Your task to perform on an android device: check storage Image 0: 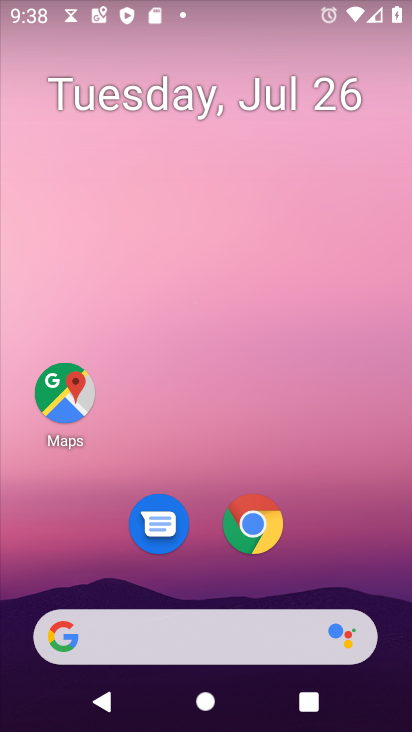
Step 0: press home button
Your task to perform on an android device: check storage Image 1: 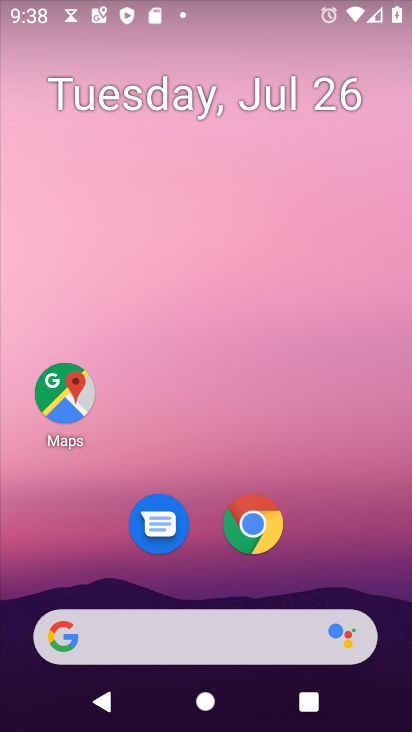
Step 1: drag from (199, 640) to (323, 138)
Your task to perform on an android device: check storage Image 2: 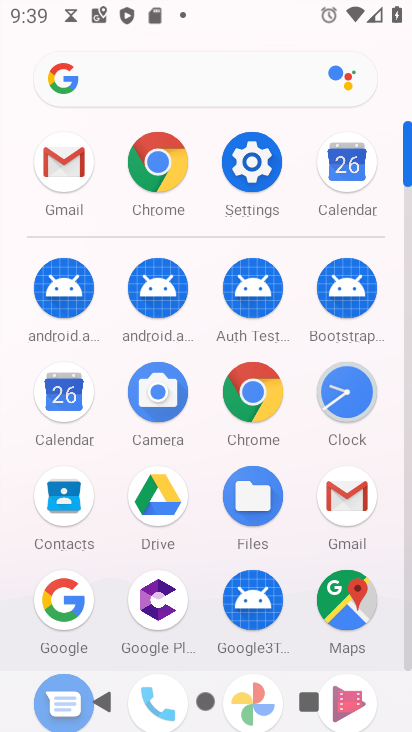
Step 2: click (257, 169)
Your task to perform on an android device: check storage Image 3: 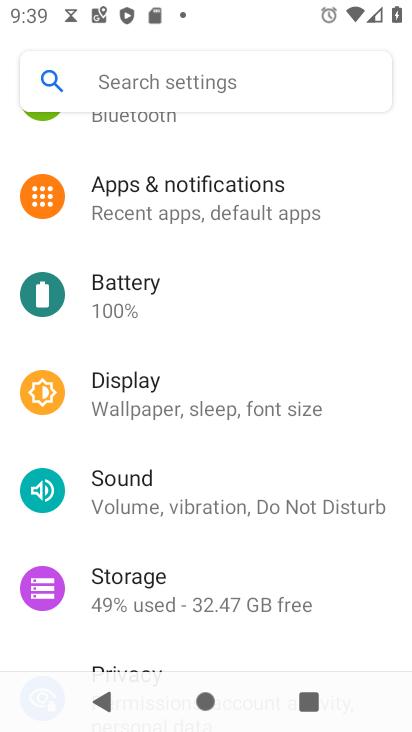
Step 3: drag from (256, 313) to (194, 583)
Your task to perform on an android device: check storage Image 4: 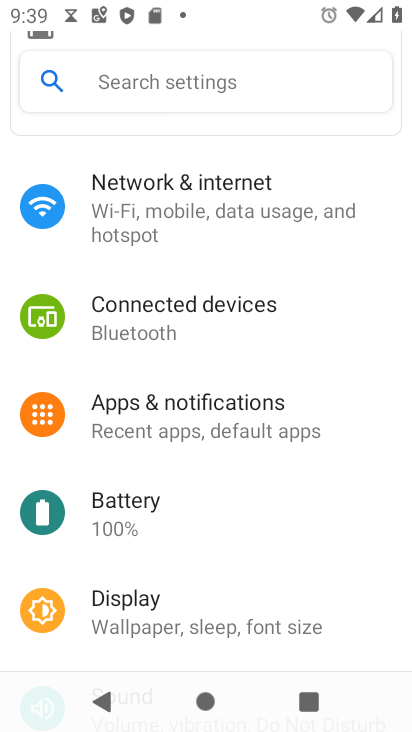
Step 4: drag from (176, 628) to (352, 119)
Your task to perform on an android device: check storage Image 5: 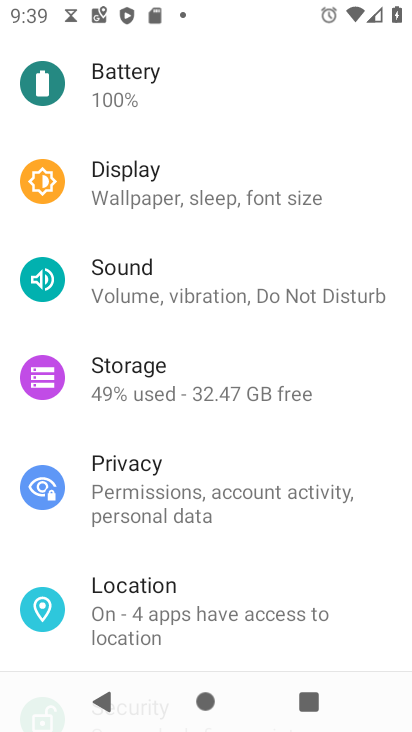
Step 5: drag from (170, 603) to (280, 221)
Your task to perform on an android device: check storage Image 6: 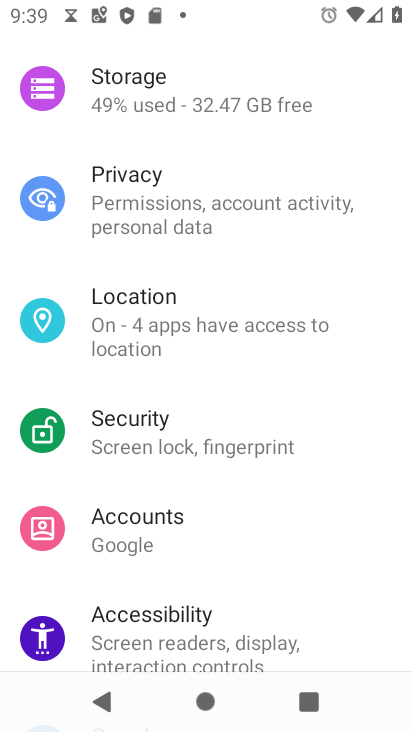
Step 6: click (155, 95)
Your task to perform on an android device: check storage Image 7: 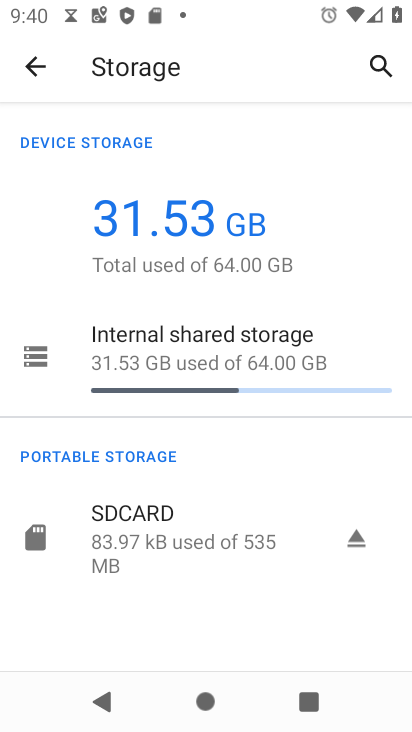
Step 7: task complete